Your task to perform on an android device: toggle sleep mode Image 0: 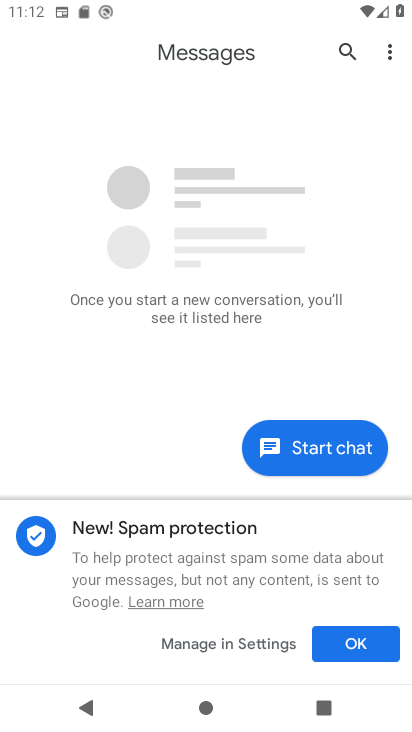
Step 0: press home button
Your task to perform on an android device: toggle sleep mode Image 1: 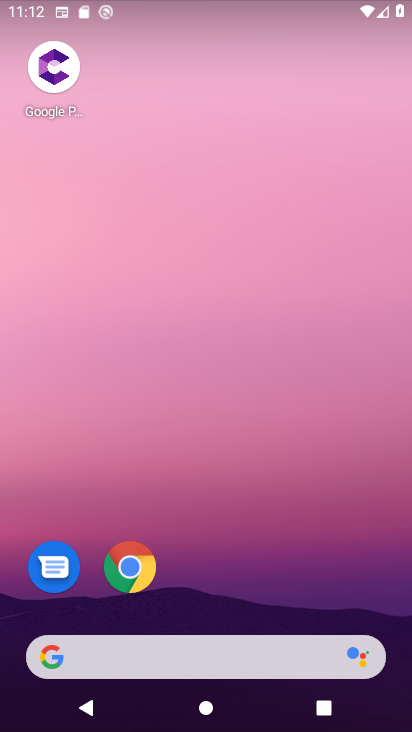
Step 1: drag from (190, 607) to (168, 32)
Your task to perform on an android device: toggle sleep mode Image 2: 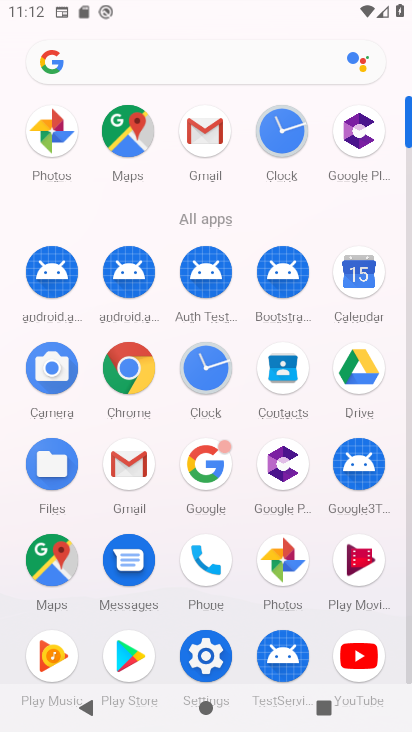
Step 2: click (201, 653)
Your task to perform on an android device: toggle sleep mode Image 3: 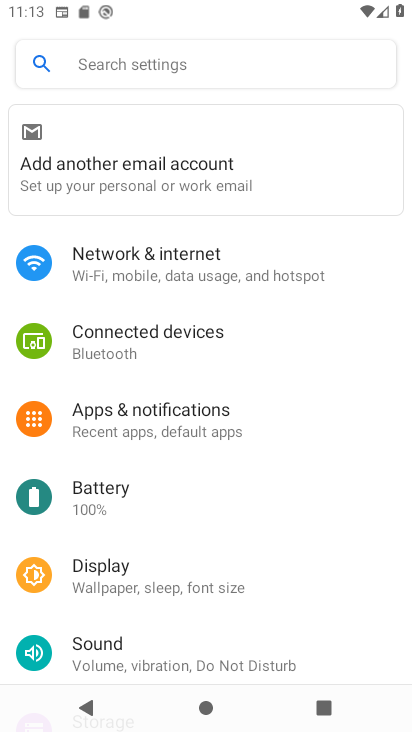
Step 3: task complete